Your task to perform on an android device: What's the weather today? Image 0: 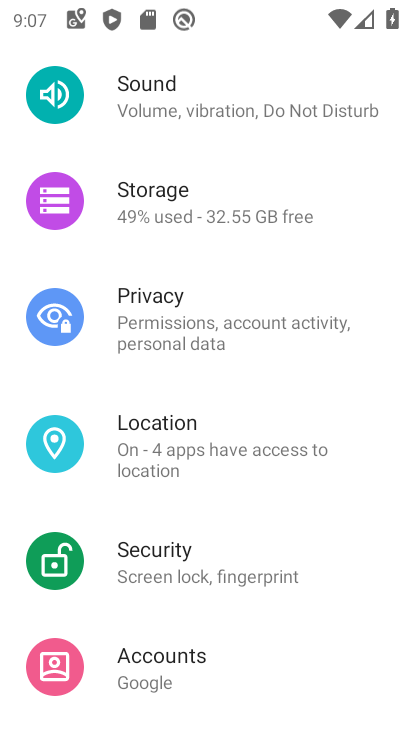
Step 0: press home button
Your task to perform on an android device: What's the weather today? Image 1: 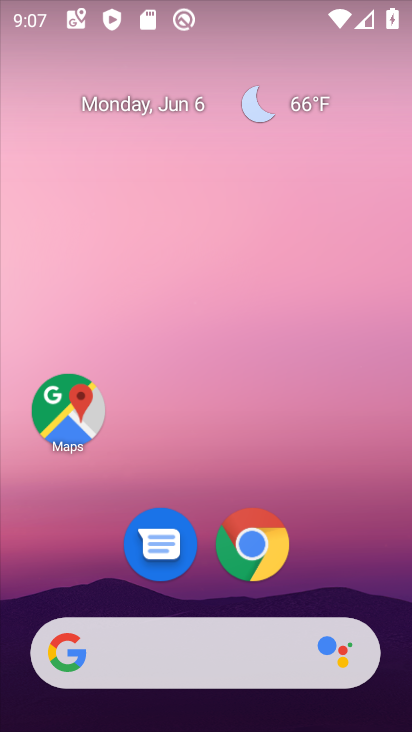
Step 1: drag from (198, 558) to (205, 83)
Your task to perform on an android device: What's the weather today? Image 2: 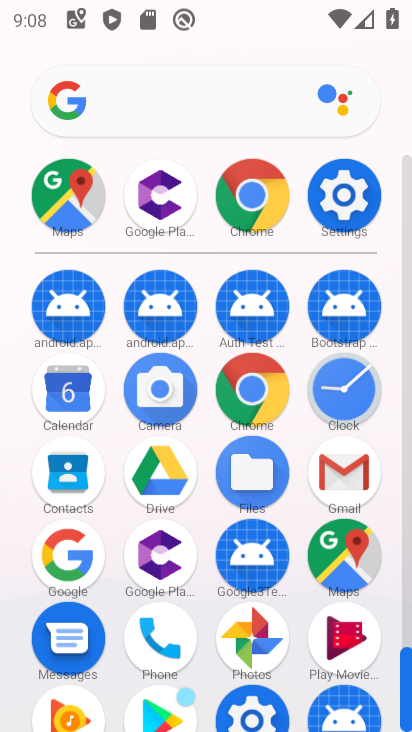
Step 2: click (254, 191)
Your task to perform on an android device: What's the weather today? Image 3: 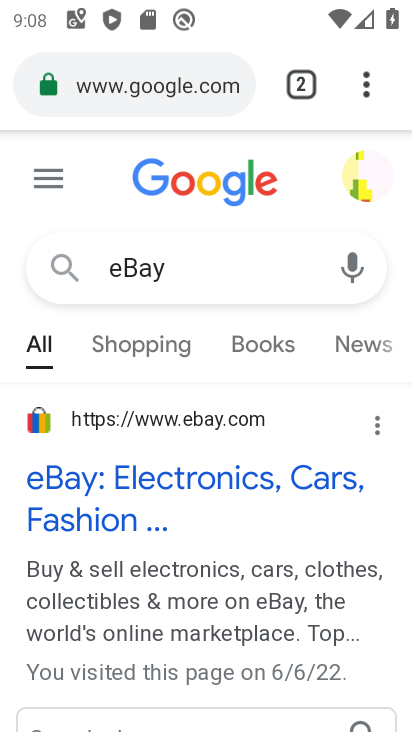
Step 3: click (151, 102)
Your task to perform on an android device: What's the weather today? Image 4: 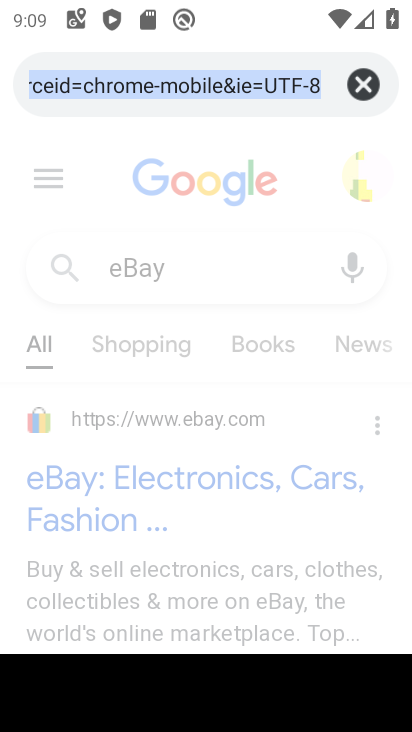
Step 4: type "vWhat's the weather today?"
Your task to perform on an android device: What's the weather today? Image 5: 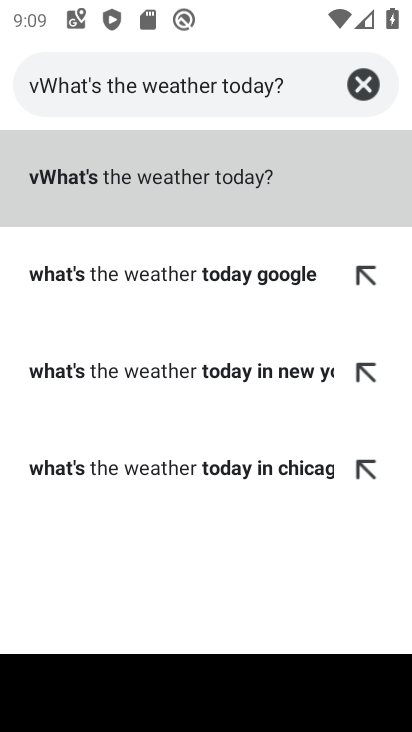
Step 5: click (250, 203)
Your task to perform on an android device: What's the weather today? Image 6: 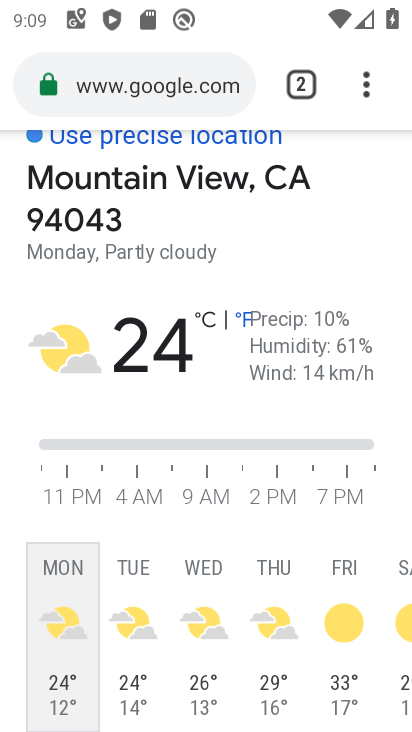
Step 6: task complete